Your task to perform on an android device: add a label to a message in the gmail app Image 0: 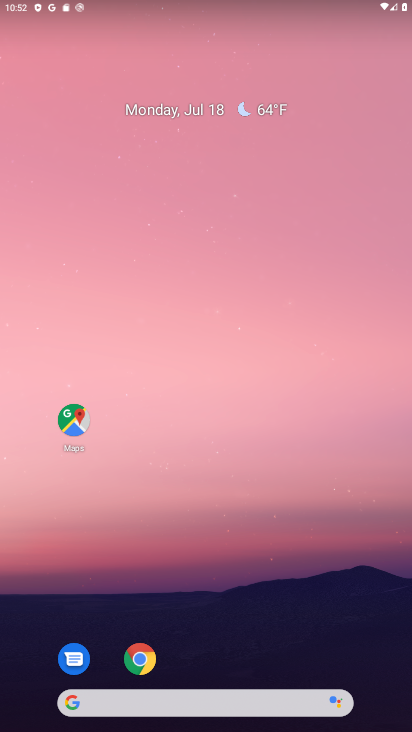
Step 0: press home button
Your task to perform on an android device: add a label to a message in the gmail app Image 1: 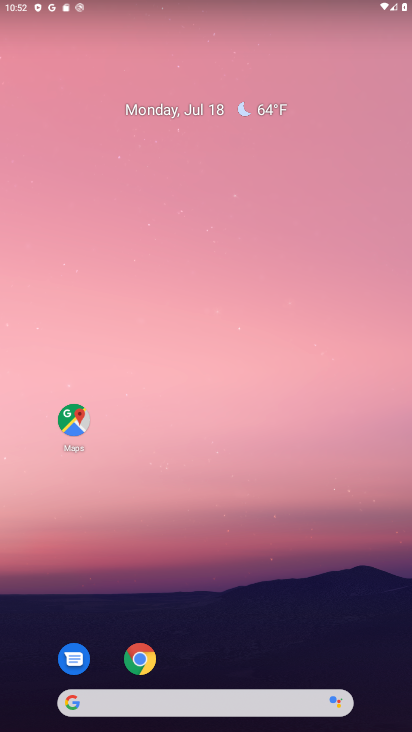
Step 1: drag from (196, 577) to (179, 63)
Your task to perform on an android device: add a label to a message in the gmail app Image 2: 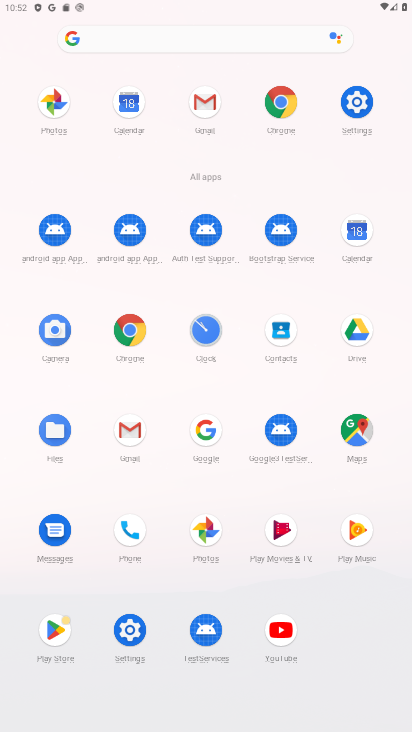
Step 2: click (214, 114)
Your task to perform on an android device: add a label to a message in the gmail app Image 3: 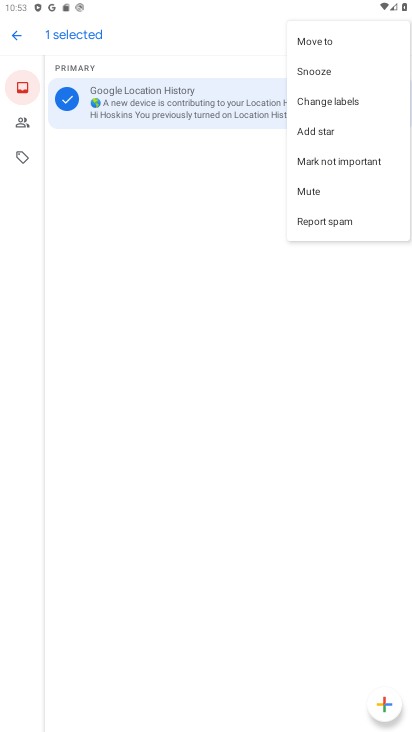
Step 3: task complete